Your task to perform on an android device: turn on sleep mode Image 0: 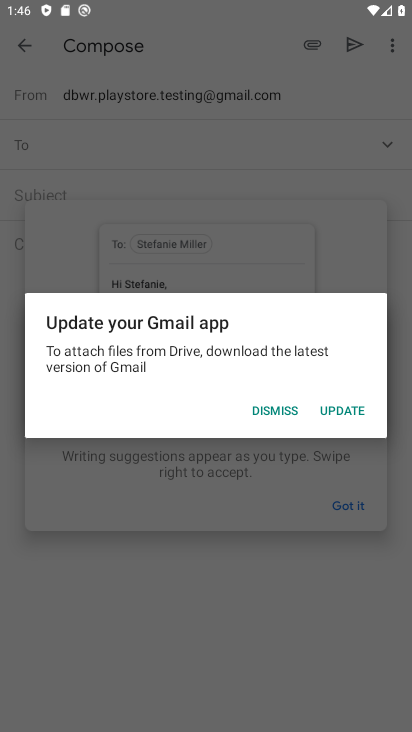
Step 0: press home button
Your task to perform on an android device: turn on sleep mode Image 1: 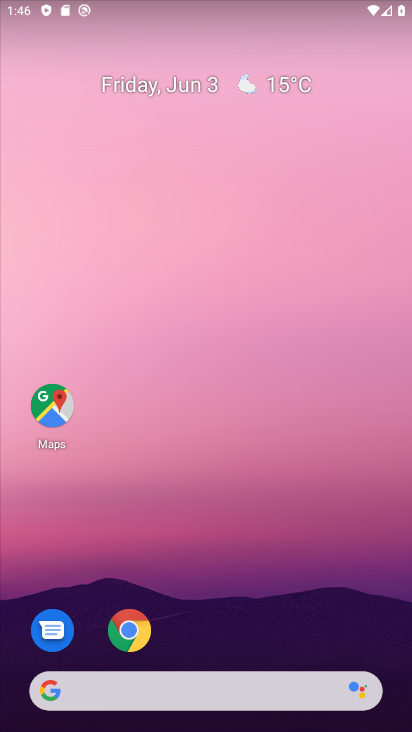
Step 1: drag from (395, 710) to (325, 100)
Your task to perform on an android device: turn on sleep mode Image 2: 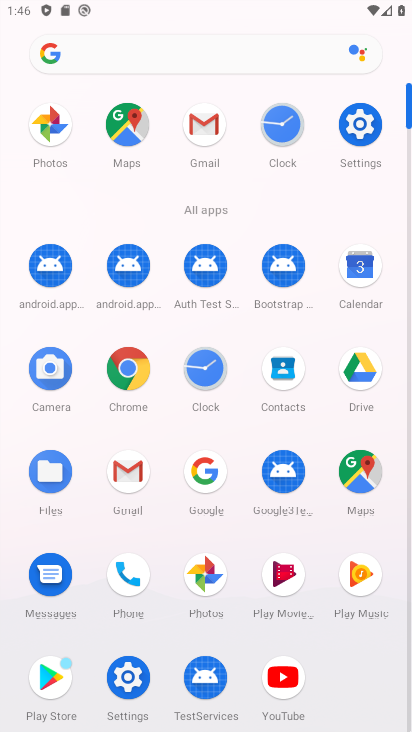
Step 2: click (133, 679)
Your task to perform on an android device: turn on sleep mode Image 3: 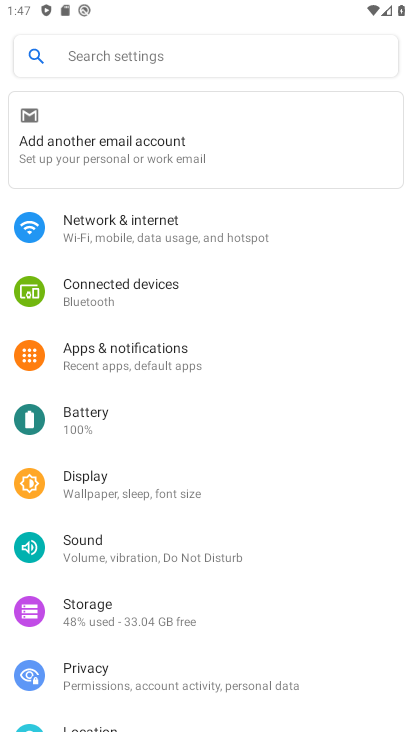
Step 3: click (122, 484)
Your task to perform on an android device: turn on sleep mode Image 4: 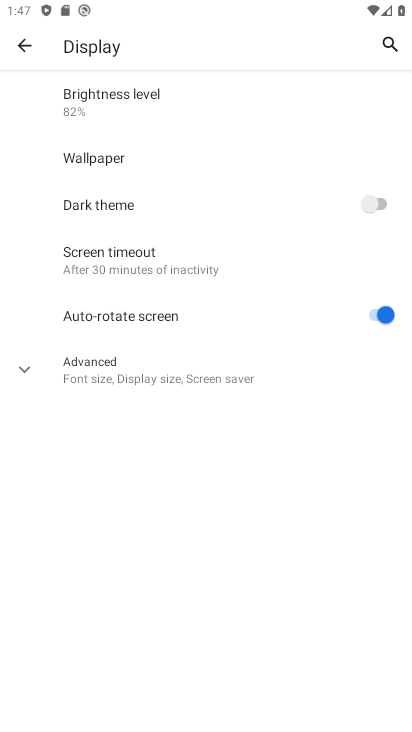
Step 4: task complete